Your task to perform on an android device: change notification settings in the gmail app Image 0: 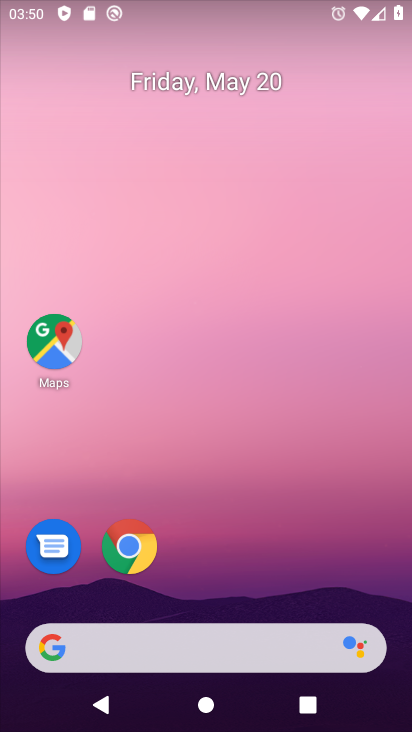
Step 0: drag from (250, 551) to (277, 149)
Your task to perform on an android device: change notification settings in the gmail app Image 1: 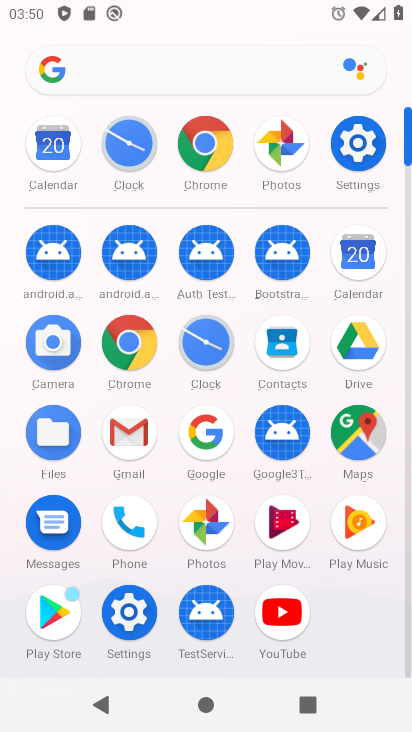
Step 1: click (361, 141)
Your task to perform on an android device: change notification settings in the gmail app Image 2: 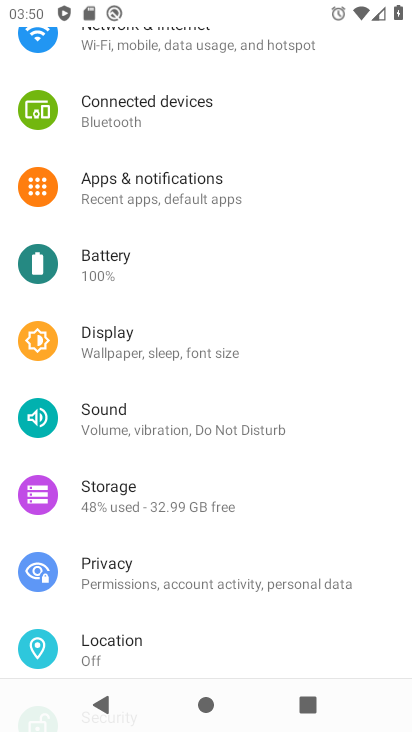
Step 2: click (199, 199)
Your task to perform on an android device: change notification settings in the gmail app Image 3: 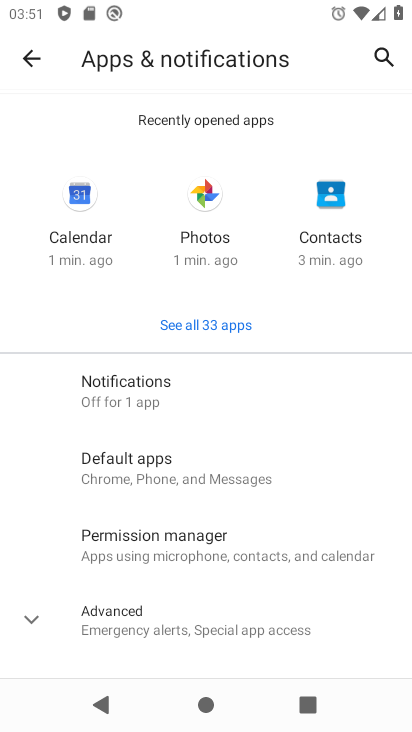
Step 3: drag from (215, 469) to (327, 236)
Your task to perform on an android device: change notification settings in the gmail app Image 4: 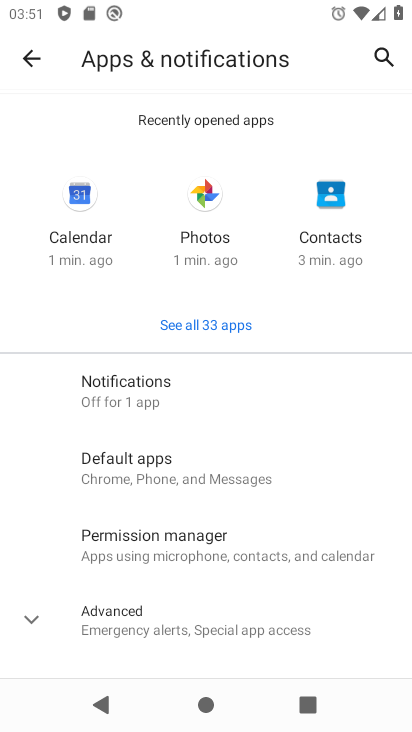
Step 4: click (134, 383)
Your task to perform on an android device: change notification settings in the gmail app Image 5: 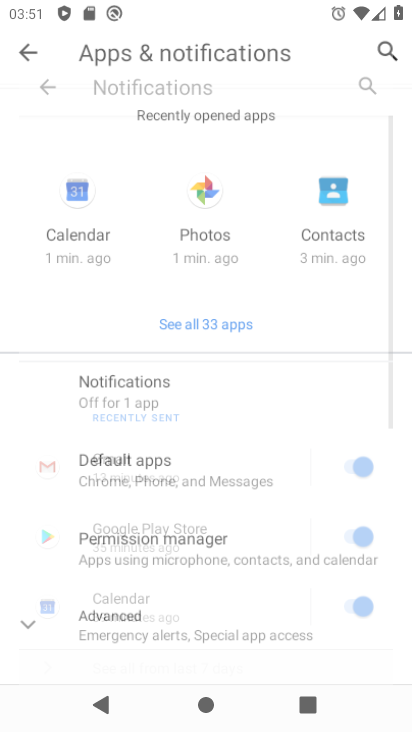
Step 5: drag from (180, 567) to (311, 202)
Your task to perform on an android device: change notification settings in the gmail app Image 6: 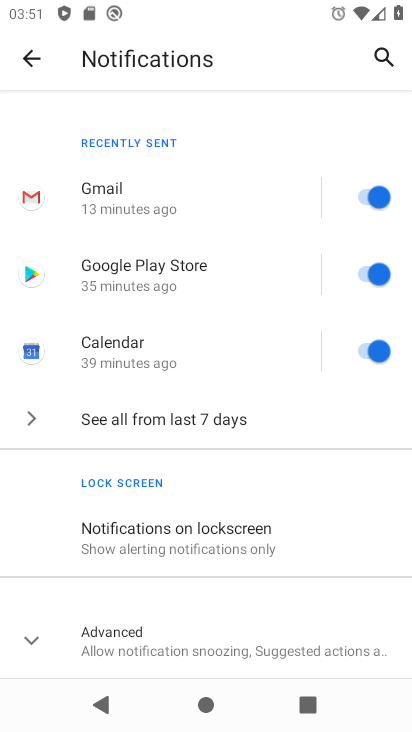
Step 6: click (188, 655)
Your task to perform on an android device: change notification settings in the gmail app Image 7: 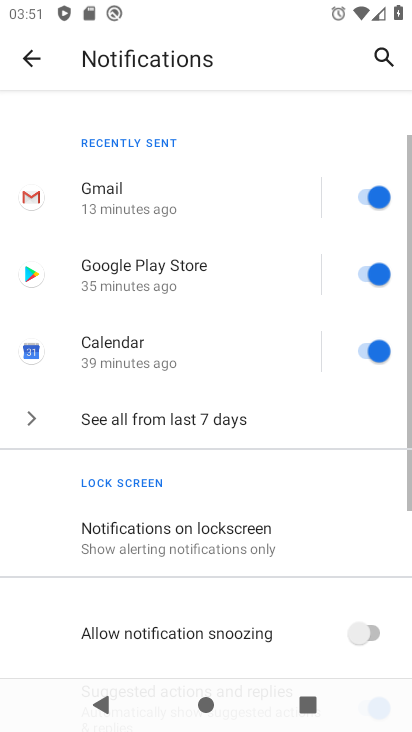
Step 7: drag from (251, 578) to (340, 285)
Your task to perform on an android device: change notification settings in the gmail app Image 8: 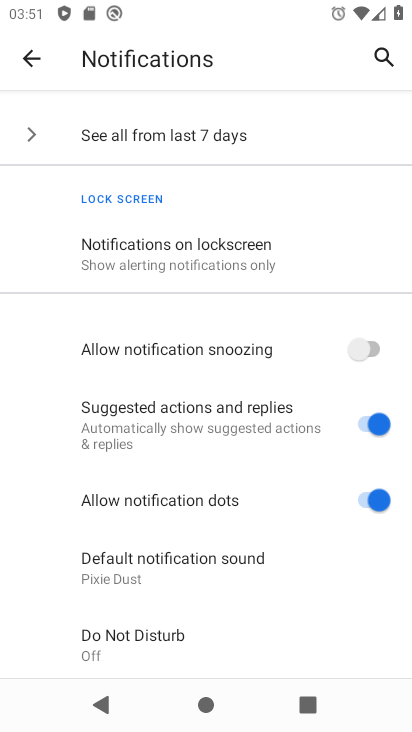
Step 8: click (350, 340)
Your task to perform on an android device: change notification settings in the gmail app Image 9: 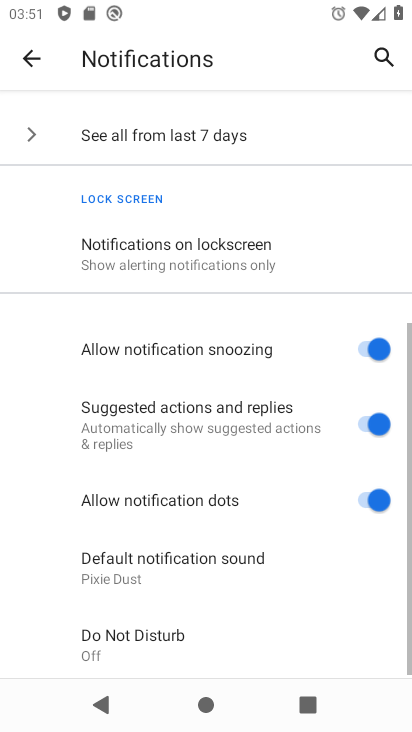
Step 9: task complete